Your task to perform on an android device: find which apps use the phone's location Image 0: 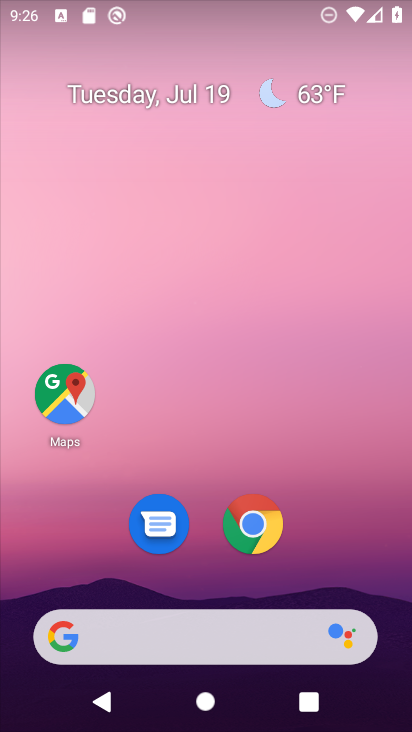
Step 0: drag from (324, 555) to (381, 62)
Your task to perform on an android device: find which apps use the phone's location Image 1: 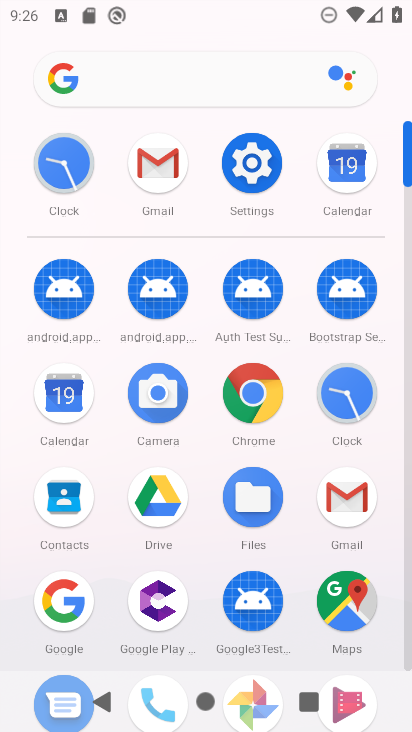
Step 1: click (273, 170)
Your task to perform on an android device: find which apps use the phone's location Image 2: 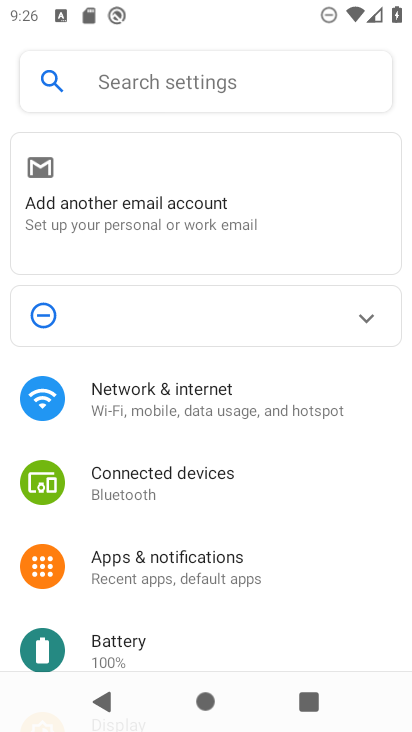
Step 2: drag from (220, 501) to (257, 93)
Your task to perform on an android device: find which apps use the phone's location Image 3: 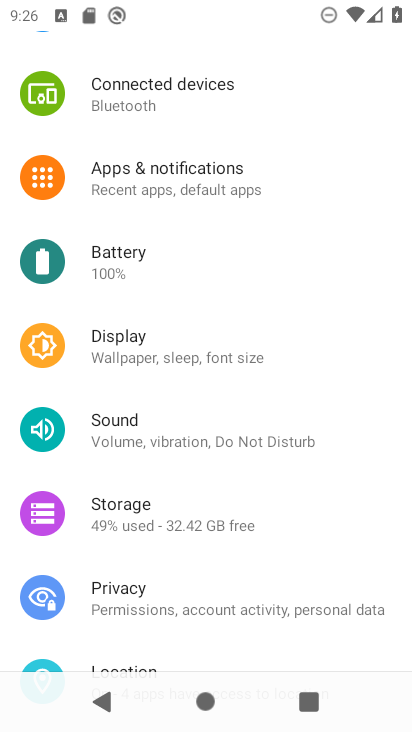
Step 3: drag from (218, 580) to (278, 183)
Your task to perform on an android device: find which apps use the phone's location Image 4: 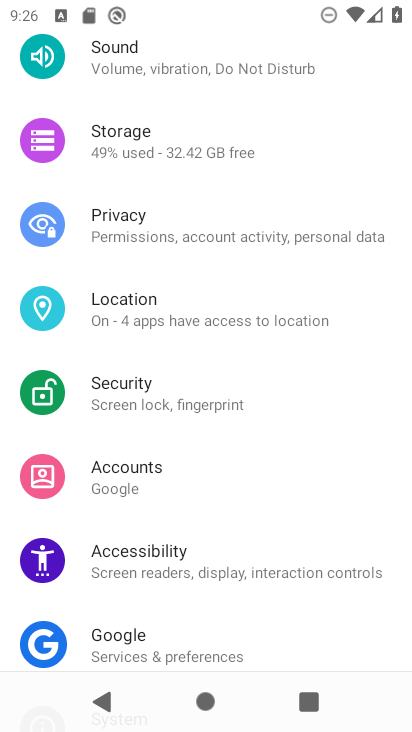
Step 4: click (260, 304)
Your task to perform on an android device: find which apps use the phone's location Image 5: 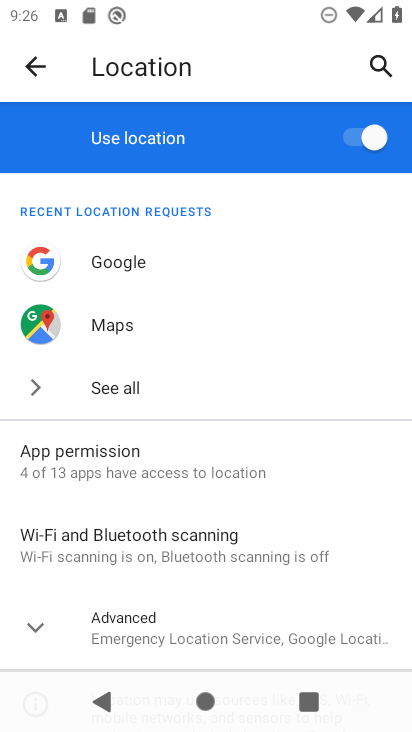
Step 5: click (173, 470)
Your task to perform on an android device: find which apps use the phone's location Image 6: 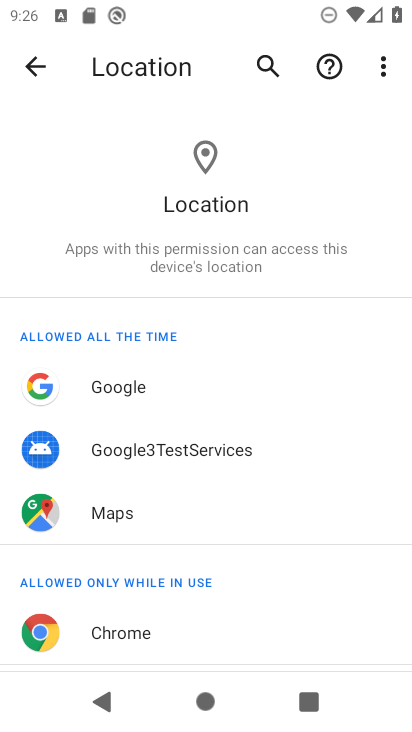
Step 6: task complete